Your task to perform on an android device: toggle javascript in the chrome app Image 0: 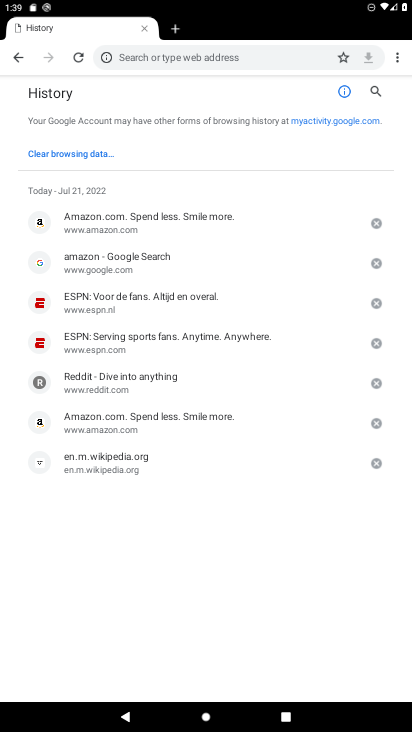
Step 0: press home button
Your task to perform on an android device: toggle javascript in the chrome app Image 1: 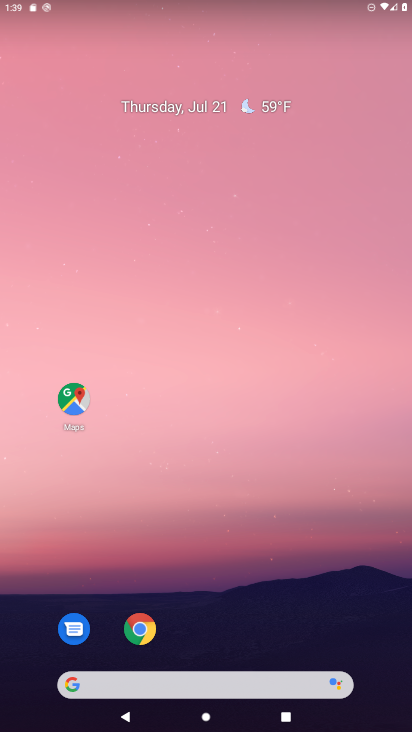
Step 1: click (141, 628)
Your task to perform on an android device: toggle javascript in the chrome app Image 2: 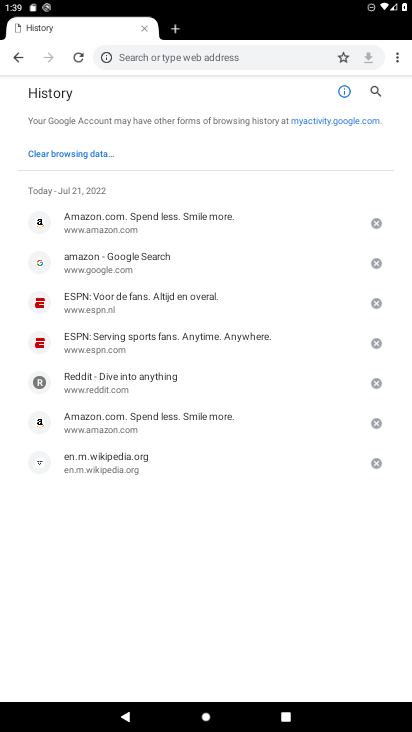
Step 2: click (397, 59)
Your task to perform on an android device: toggle javascript in the chrome app Image 3: 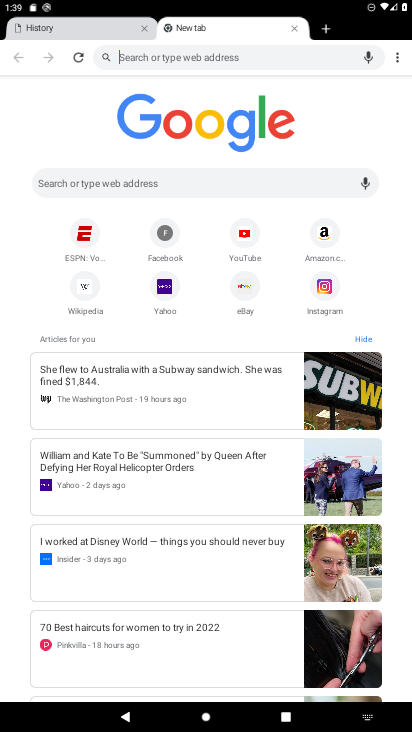
Step 3: click (396, 60)
Your task to perform on an android device: toggle javascript in the chrome app Image 4: 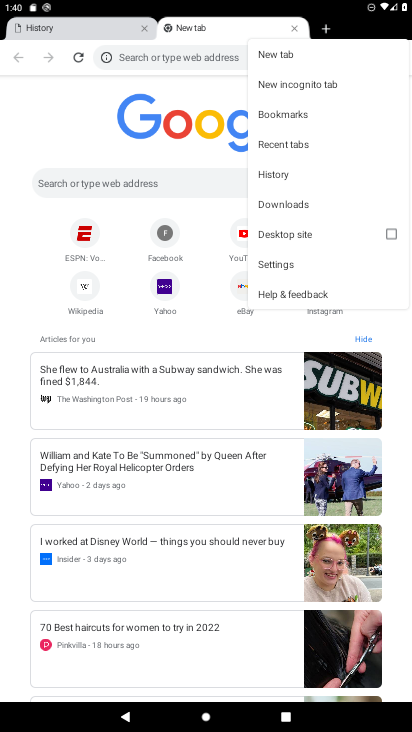
Step 4: click (273, 261)
Your task to perform on an android device: toggle javascript in the chrome app Image 5: 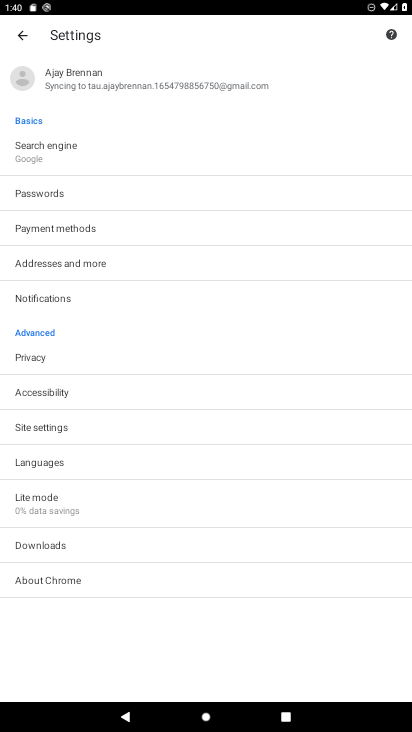
Step 5: click (45, 426)
Your task to perform on an android device: toggle javascript in the chrome app Image 6: 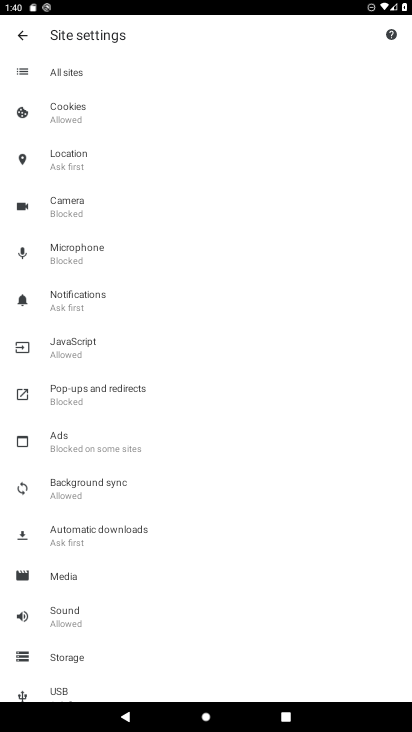
Step 6: click (71, 343)
Your task to perform on an android device: toggle javascript in the chrome app Image 7: 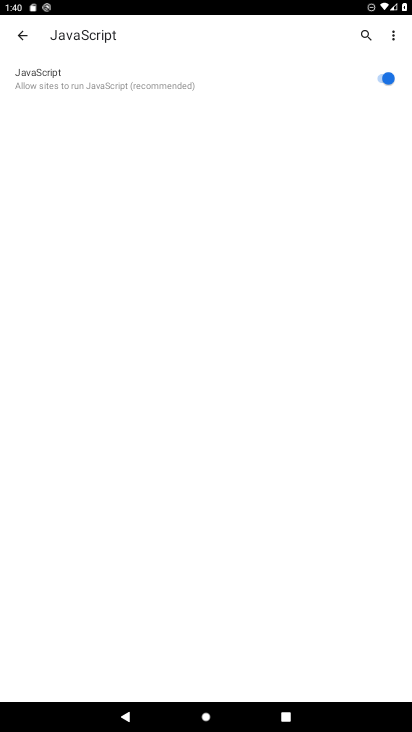
Step 7: click (376, 76)
Your task to perform on an android device: toggle javascript in the chrome app Image 8: 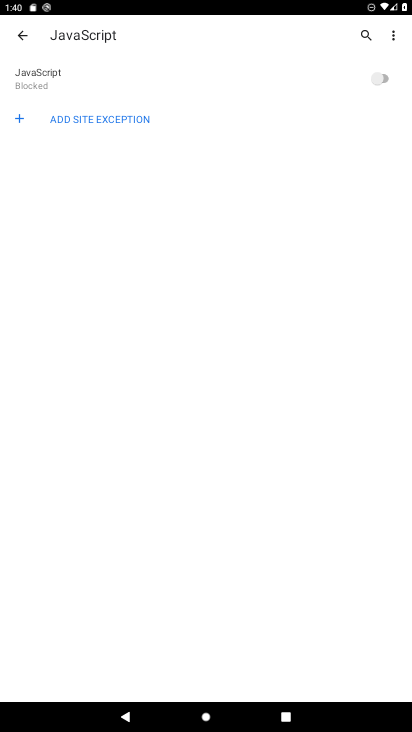
Step 8: task complete